Your task to perform on an android device: Go to Reddit.com Image 0: 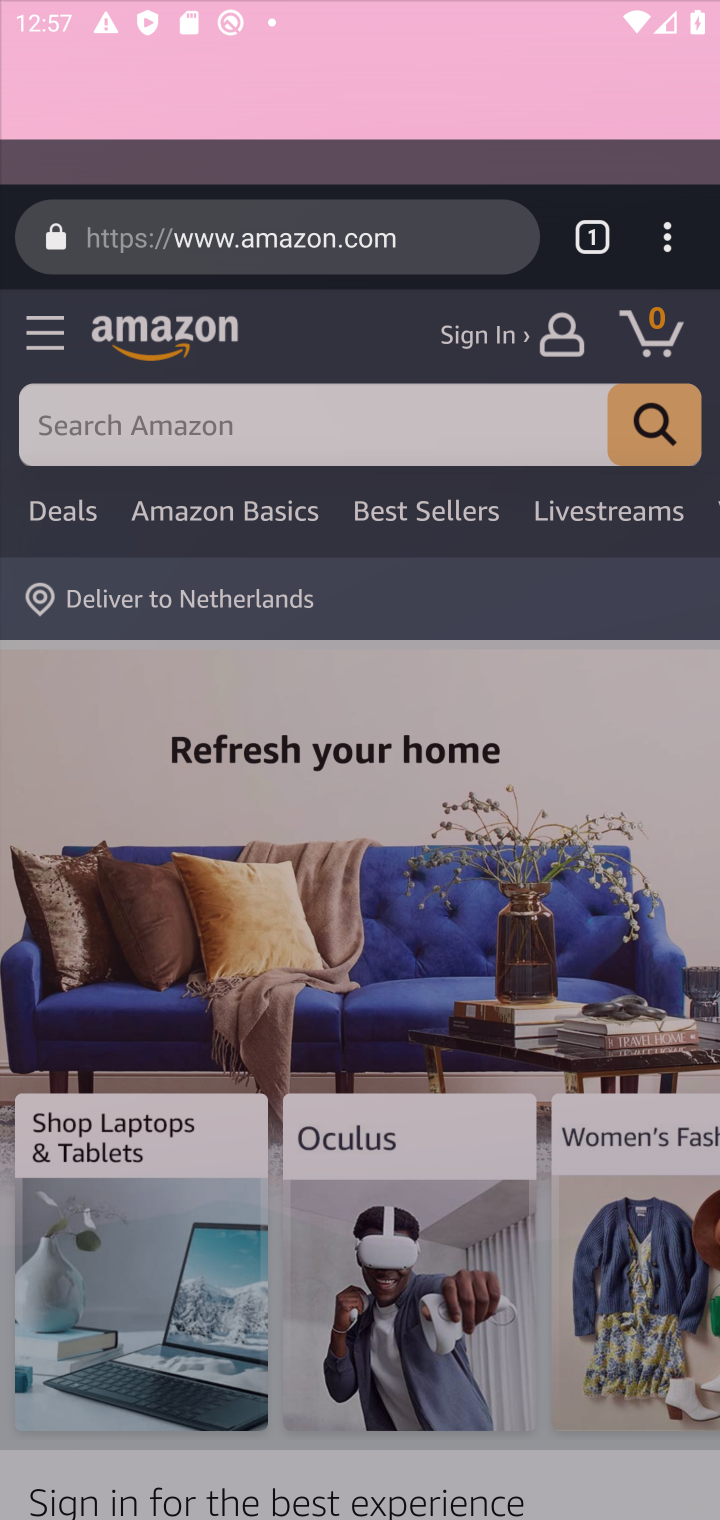
Step 0: press home button
Your task to perform on an android device: Go to Reddit.com Image 1: 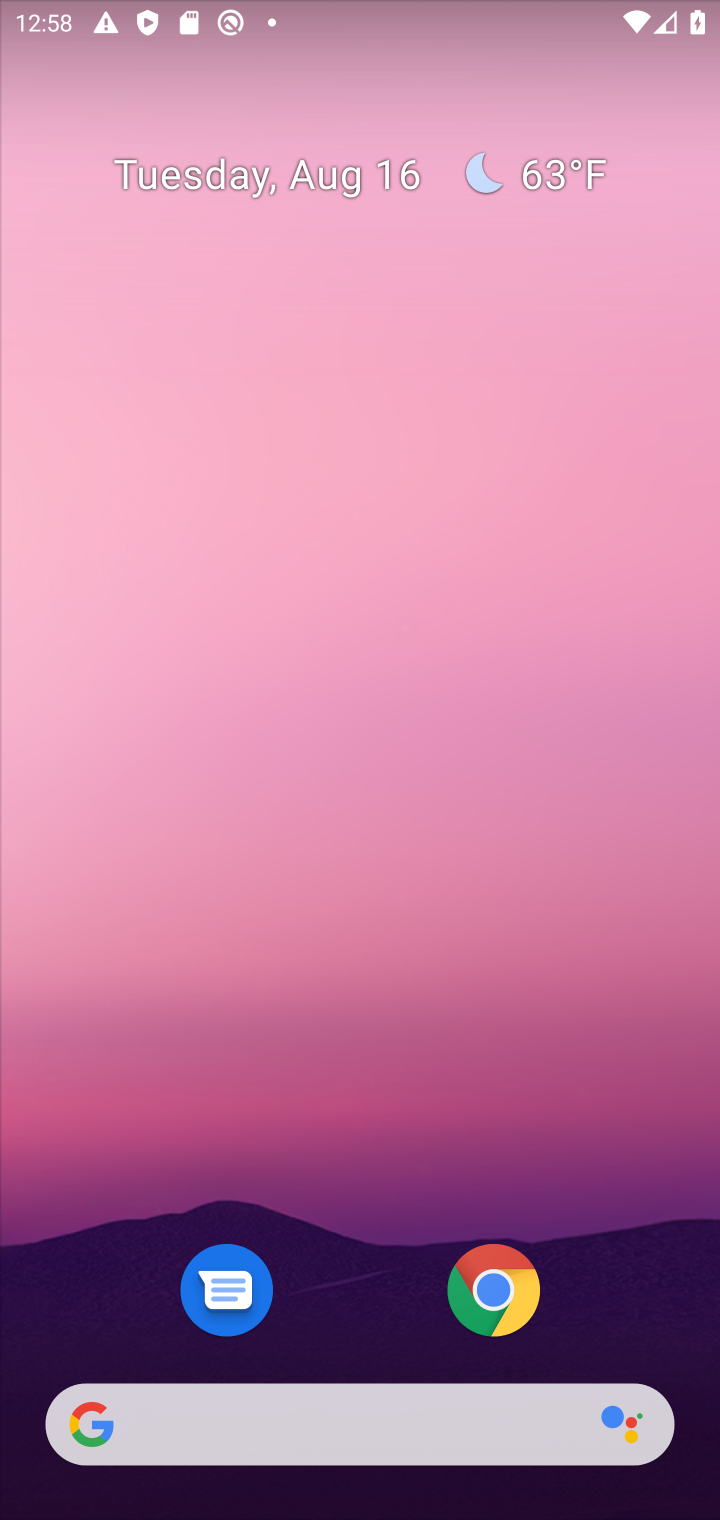
Step 1: click (240, 1428)
Your task to perform on an android device: Go to Reddit.com Image 2: 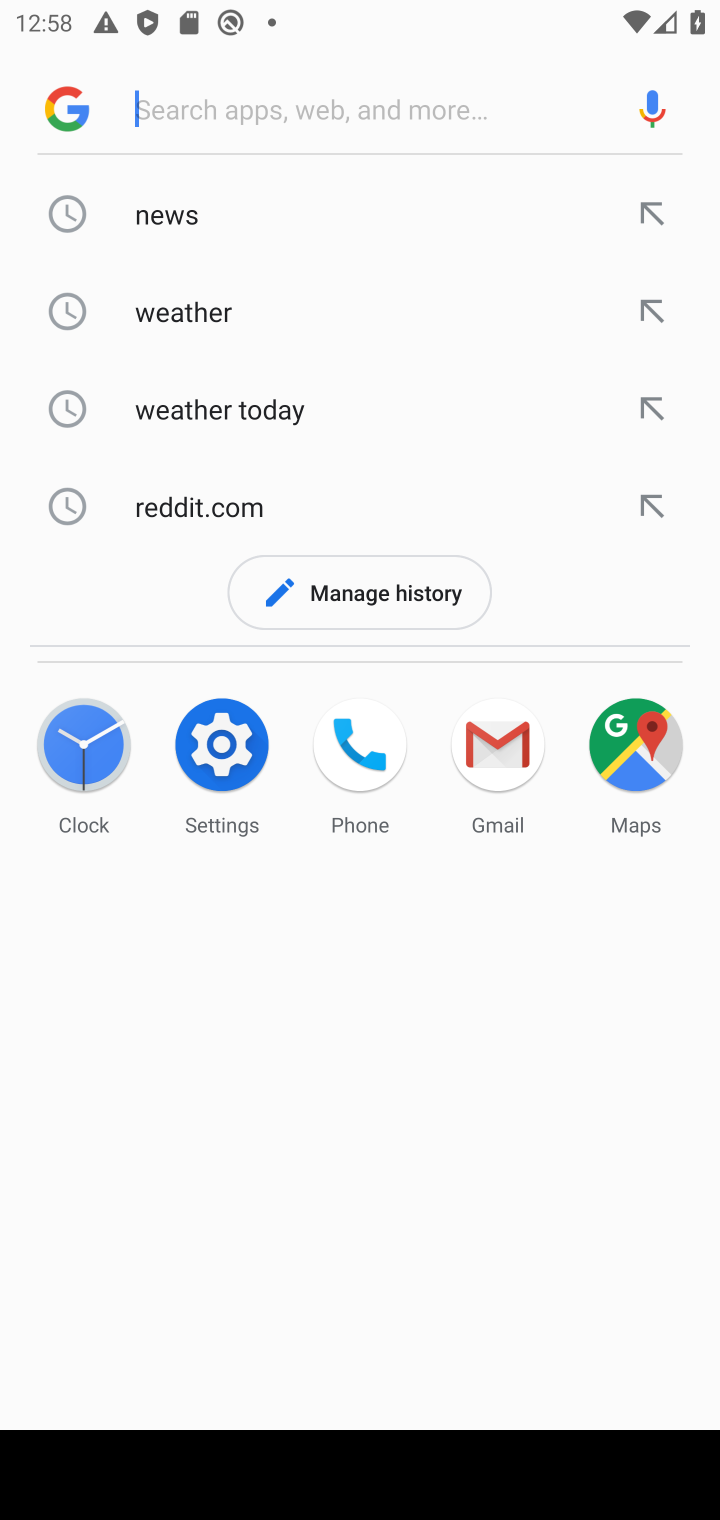
Step 2: click (169, 522)
Your task to perform on an android device: Go to Reddit.com Image 3: 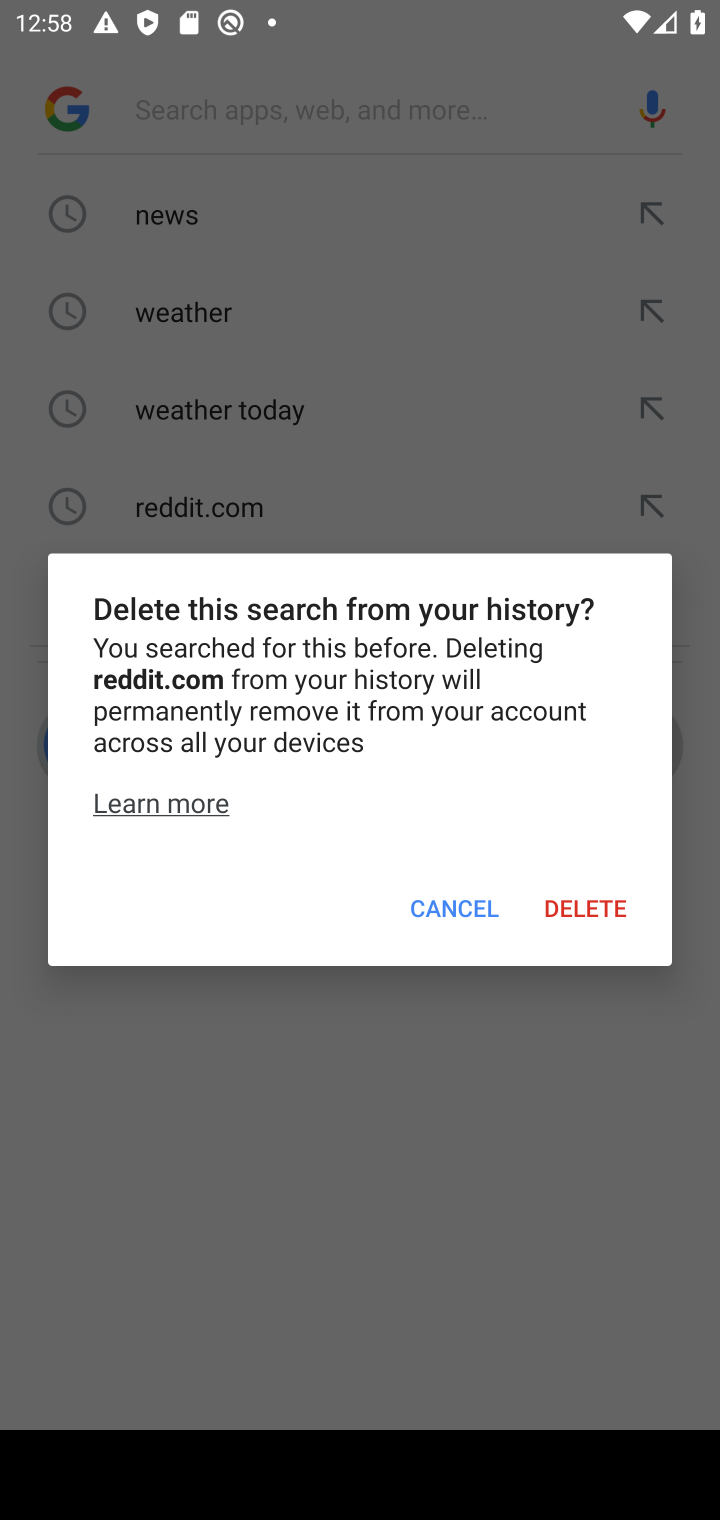
Step 3: click (469, 901)
Your task to perform on an android device: Go to Reddit.com Image 4: 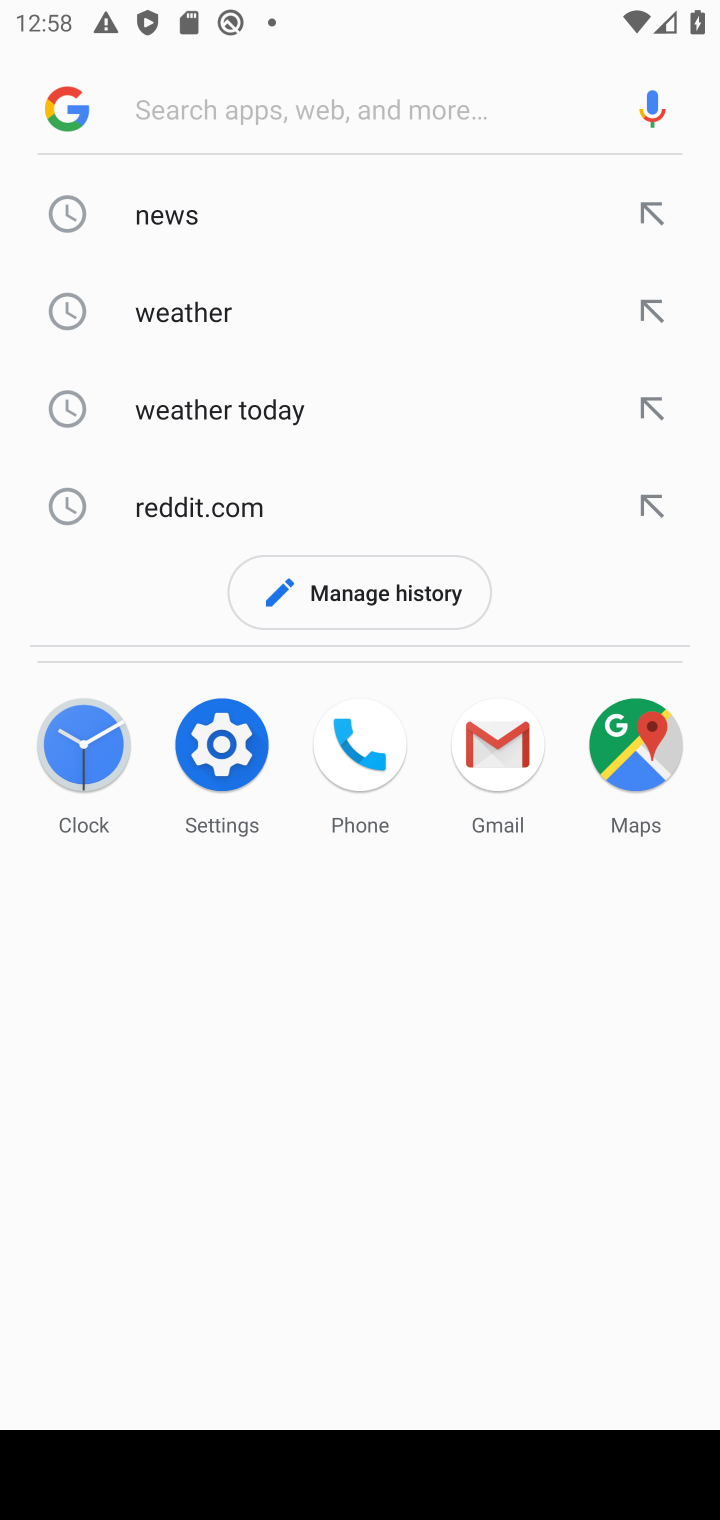
Step 4: click (79, 504)
Your task to perform on an android device: Go to Reddit.com Image 5: 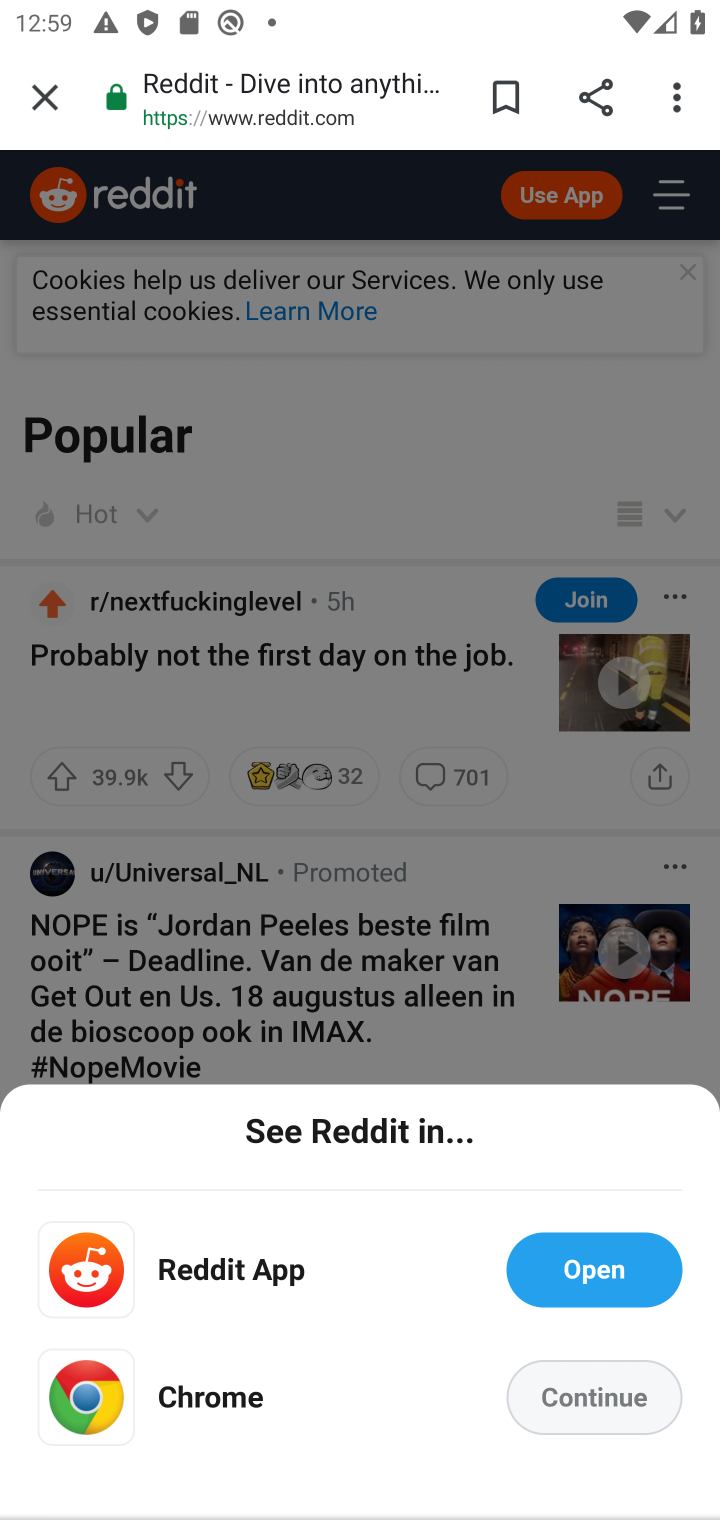
Step 5: task complete